Your task to perform on an android device: Search for the best rated headphones on Amazon. Image 0: 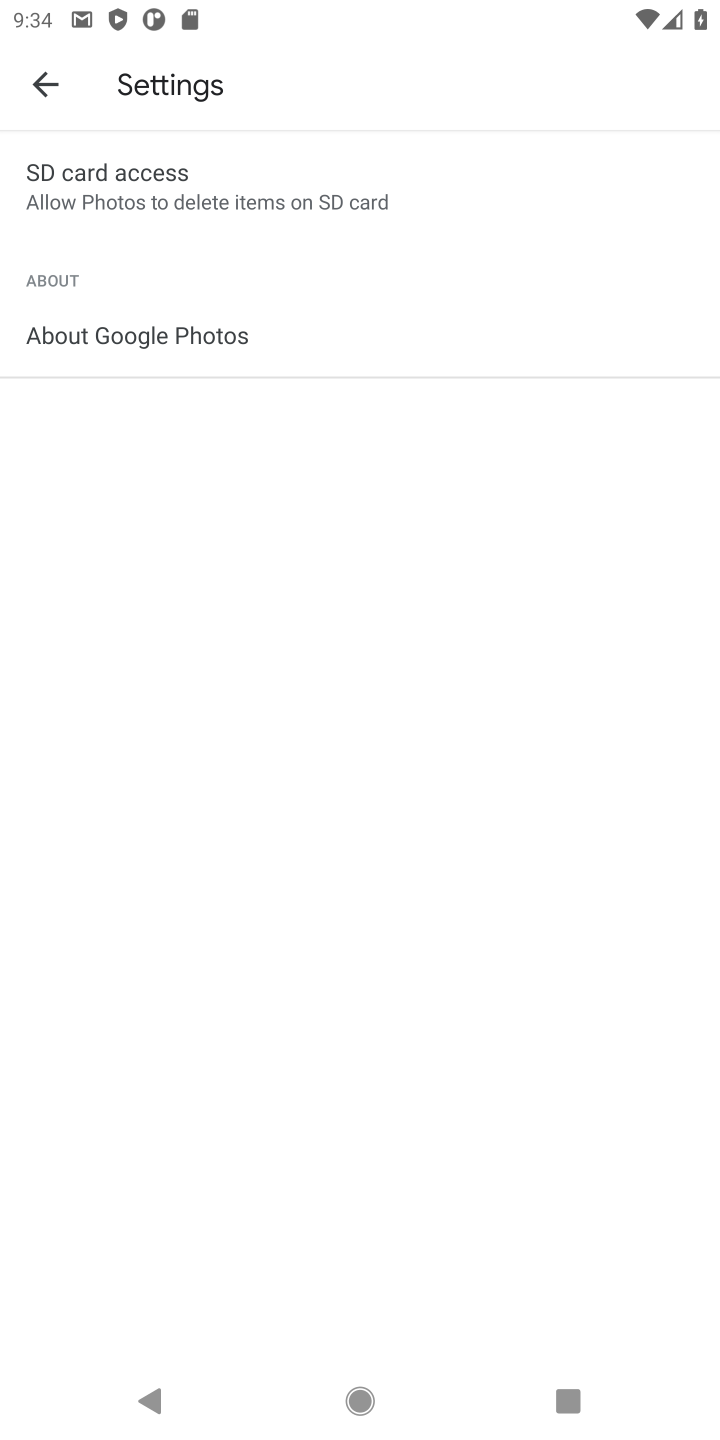
Step 0: press home button
Your task to perform on an android device: Search for the best rated headphones on Amazon. Image 1: 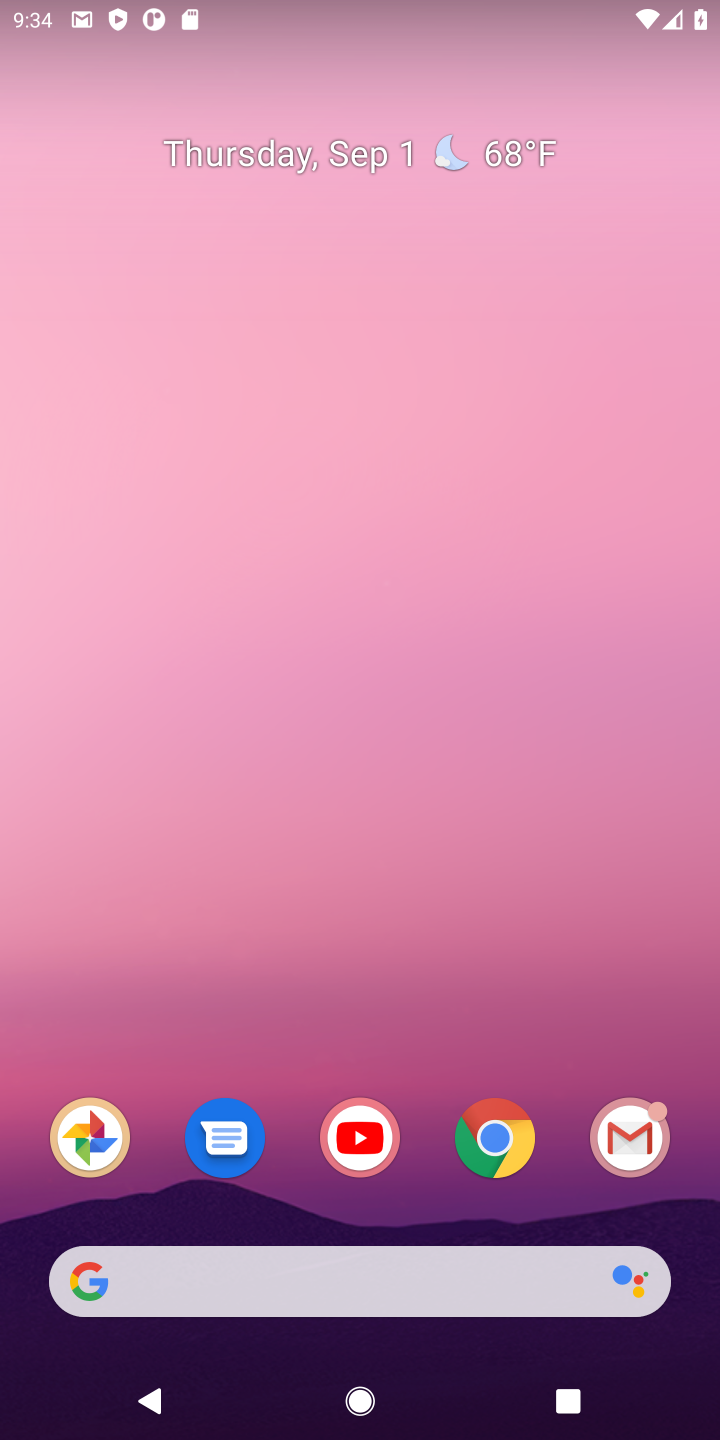
Step 1: click (486, 1123)
Your task to perform on an android device: Search for the best rated headphones on Amazon. Image 2: 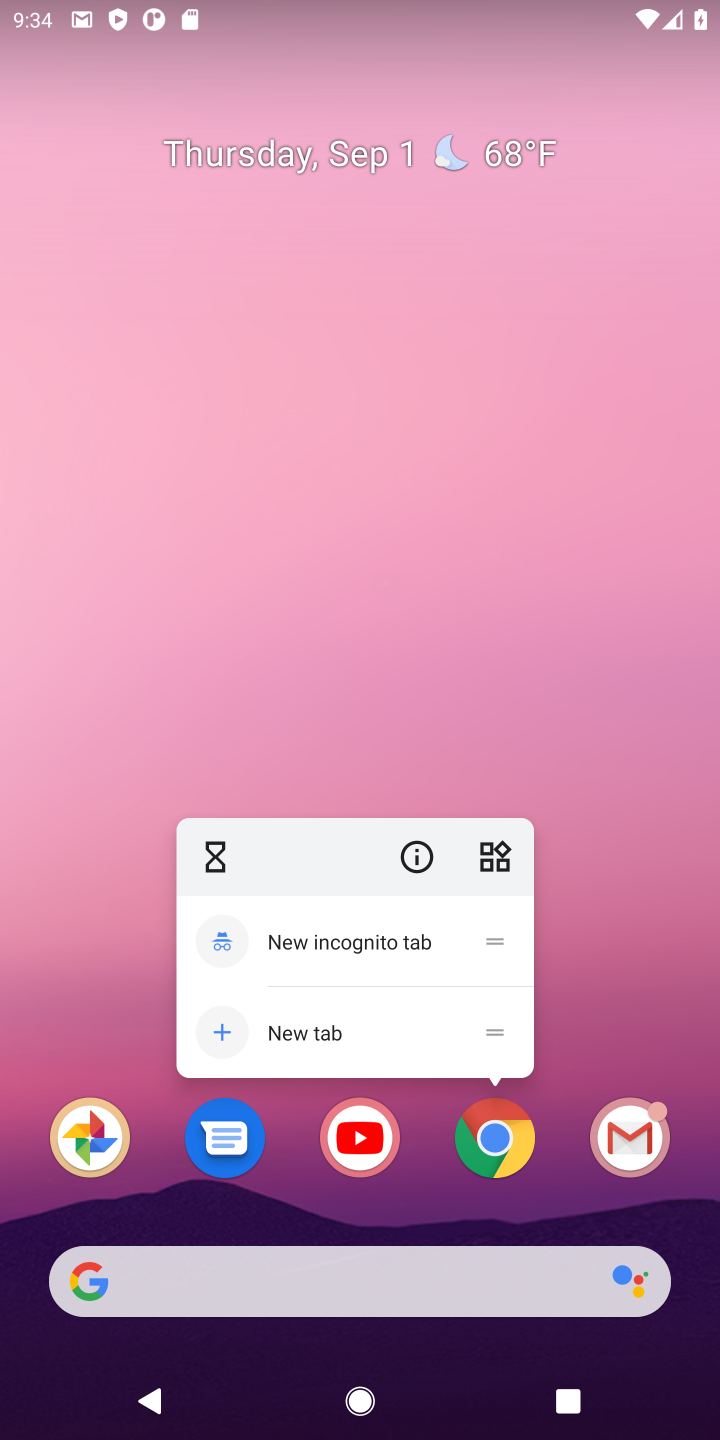
Step 2: click (496, 1151)
Your task to perform on an android device: Search for the best rated headphones on Amazon. Image 3: 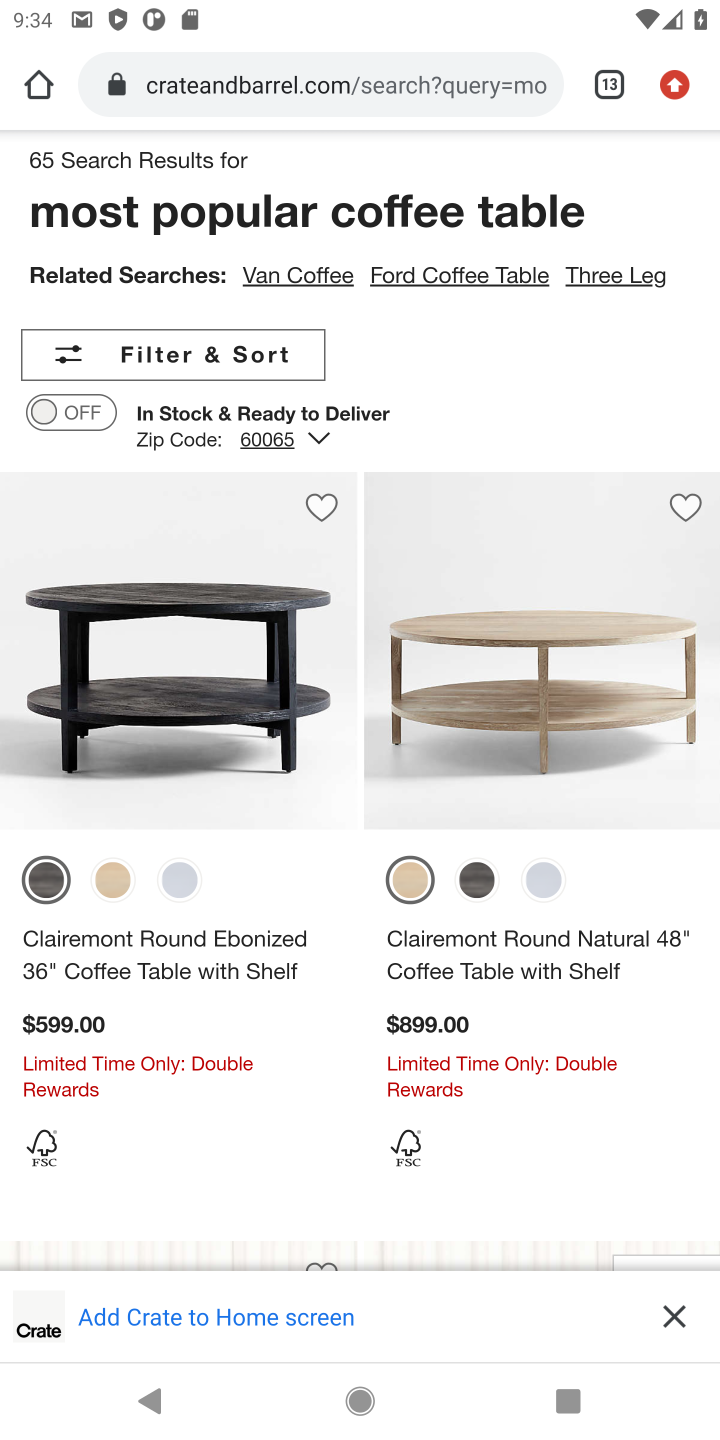
Step 3: click (612, 87)
Your task to perform on an android device: Search for the best rated headphones on Amazon. Image 4: 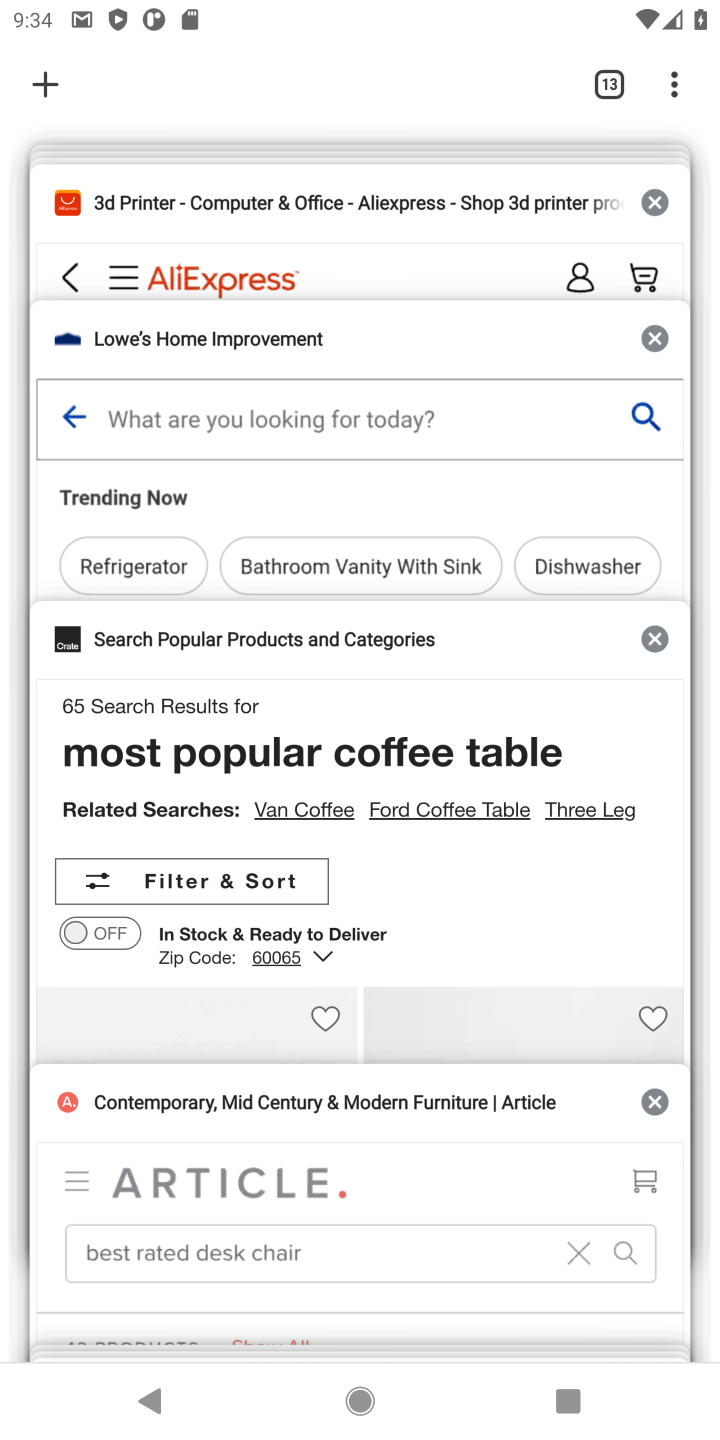
Step 4: drag from (432, 218) to (536, 1259)
Your task to perform on an android device: Search for the best rated headphones on Amazon. Image 5: 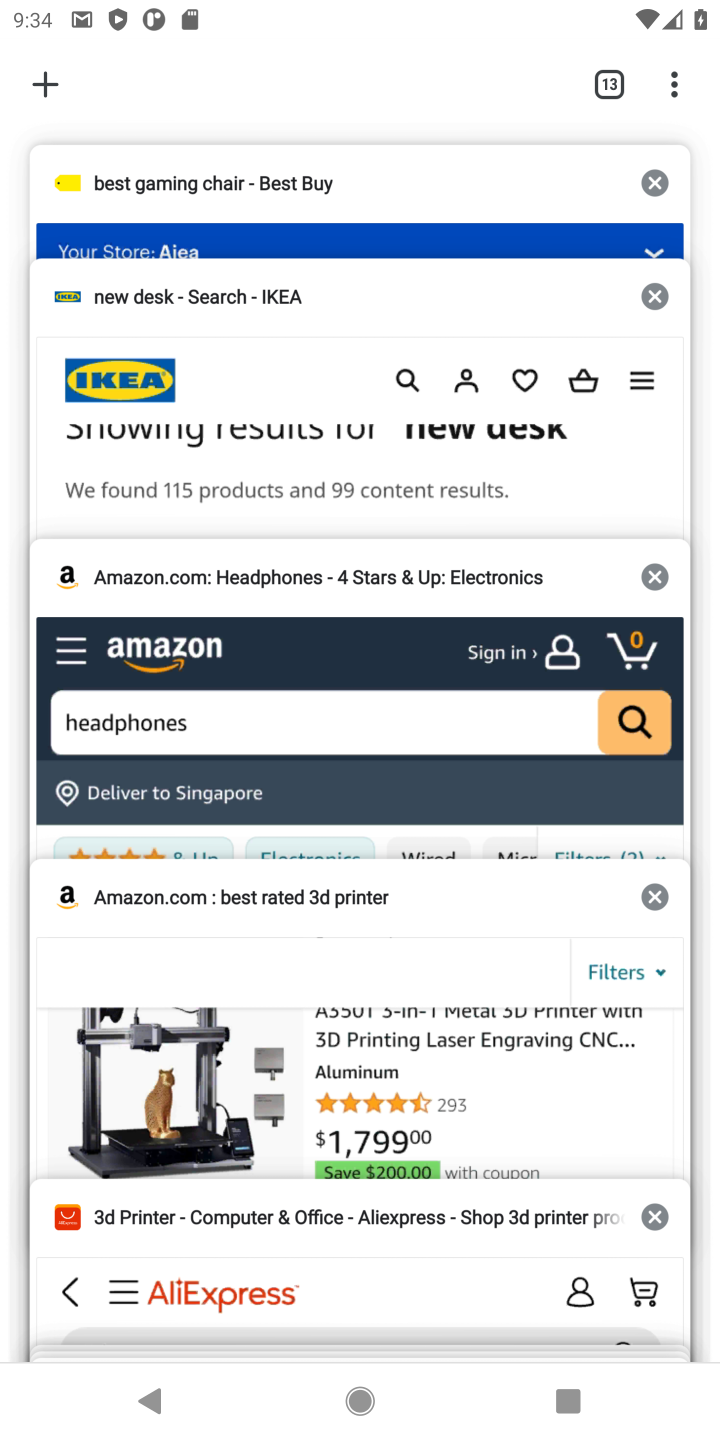
Step 5: click (313, 712)
Your task to perform on an android device: Search for the best rated headphones on Amazon. Image 6: 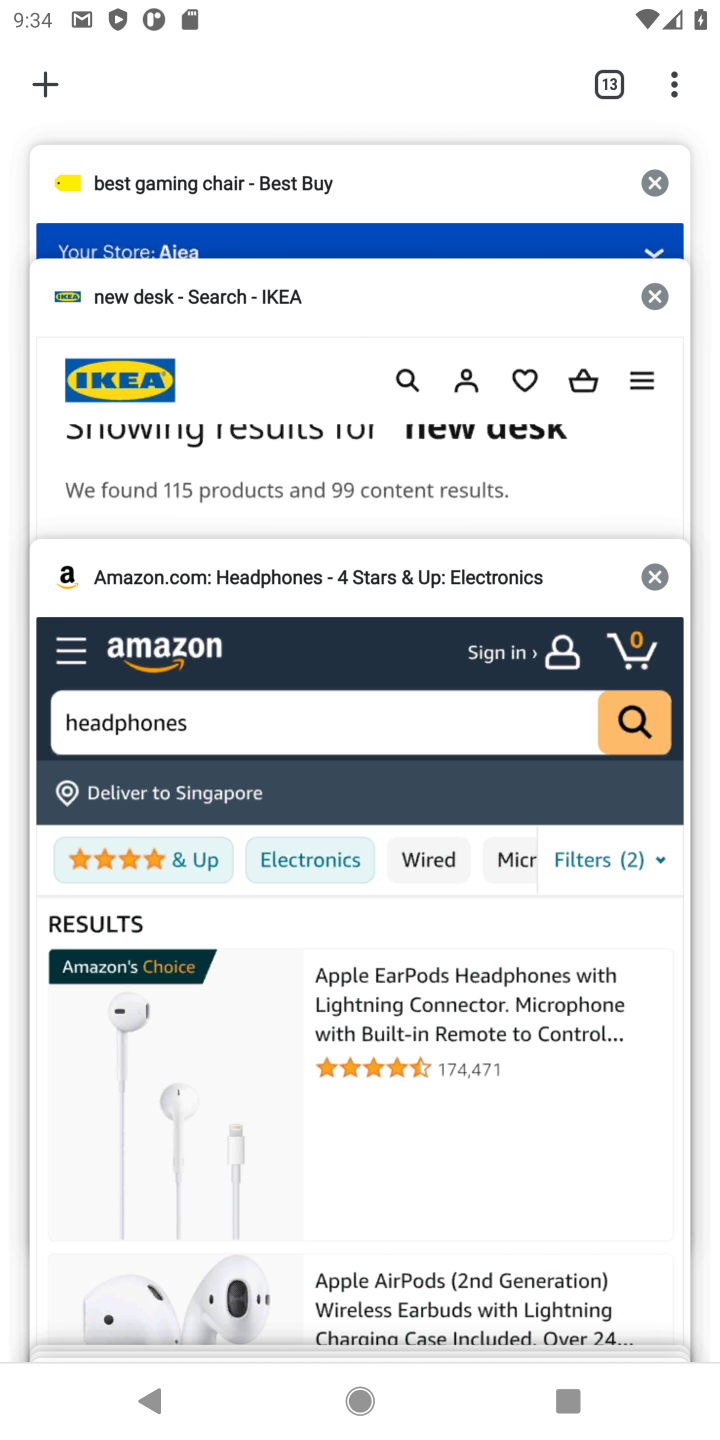
Step 6: click (445, 1154)
Your task to perform on an android device: Search for the best rated headphones on Amazon. Image 7: 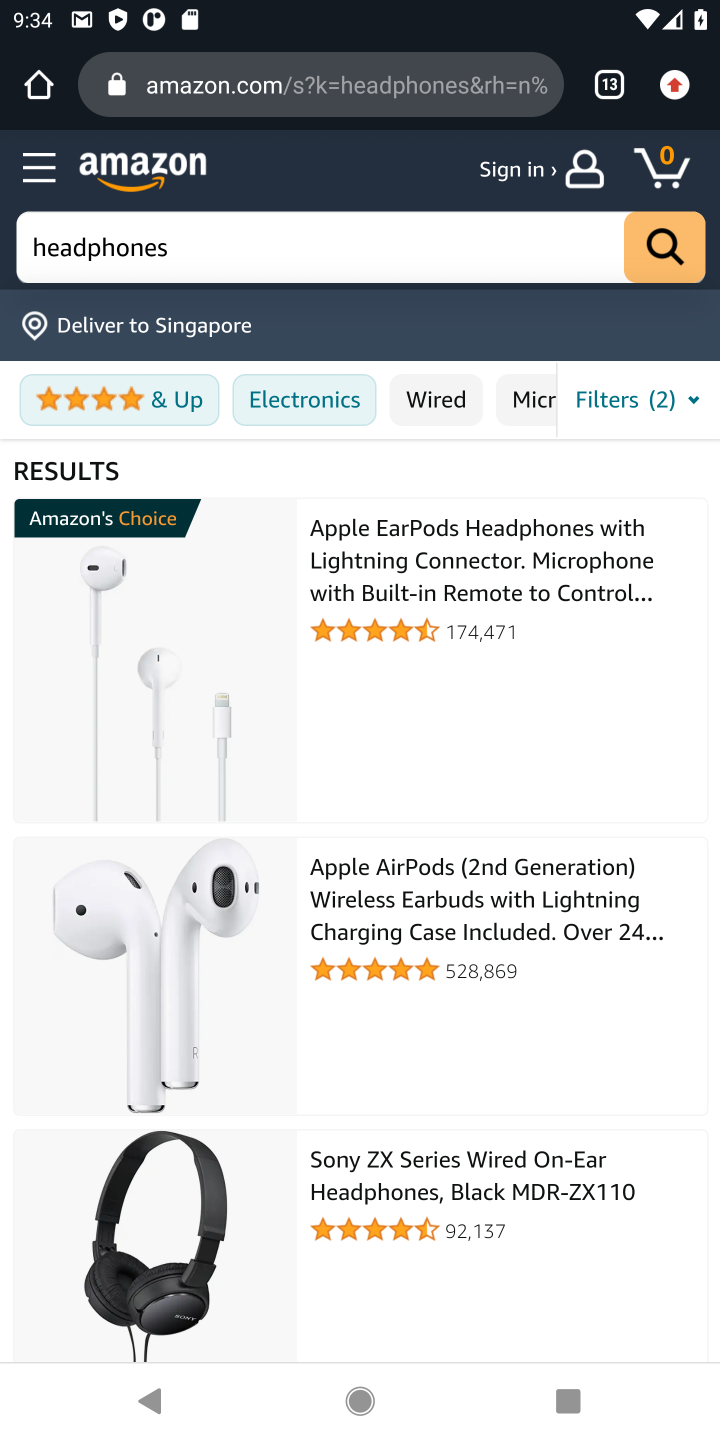
Step 7: task complete